Your task to perform on an android device: Clear the shopping cart on newegg.com. Add razer thresher to the cart on newegg.com Image 0: 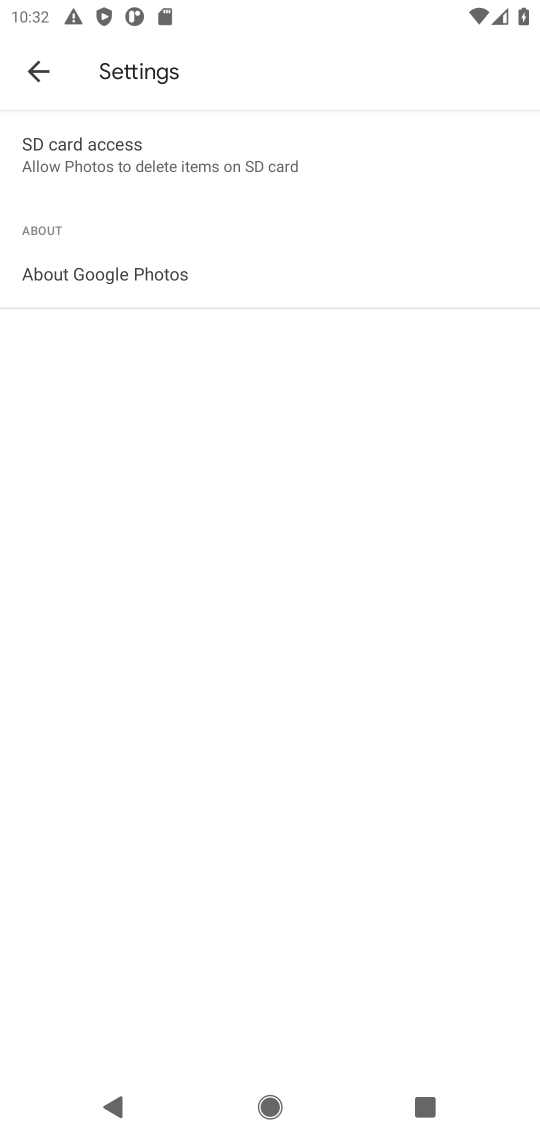
Step 0: press home button
Your task to perform on an android device: Clear the shopping cart on newegg.com. Add razer thresher to the cart on newegg.com Image 1: 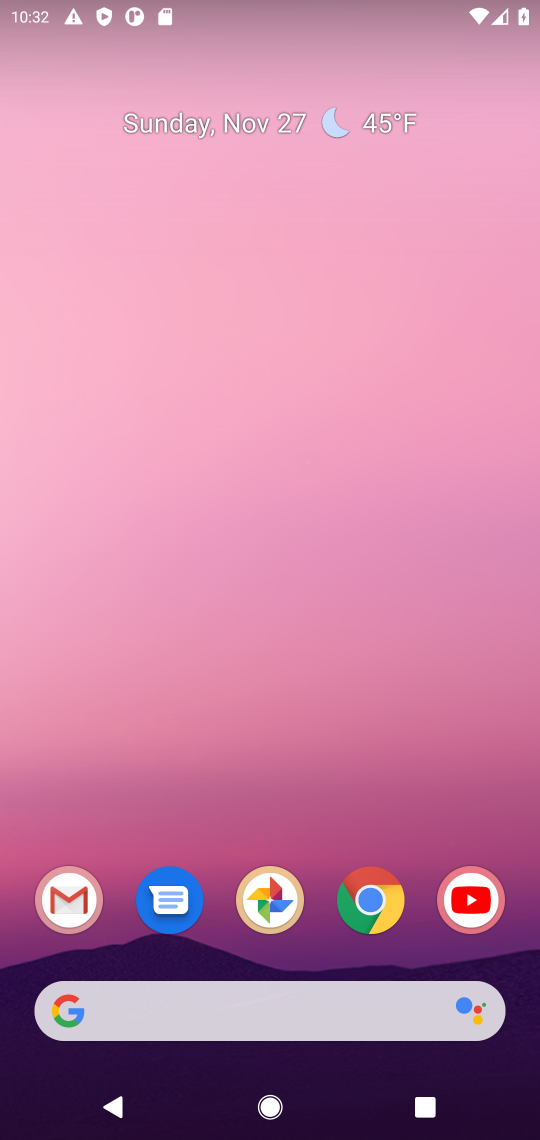
Step 1: click (379, 899)
Your task to perform on an android device: Clear the shopping cart on newegg.com. Add razer thresher to the cart on newegg.com Image 2: 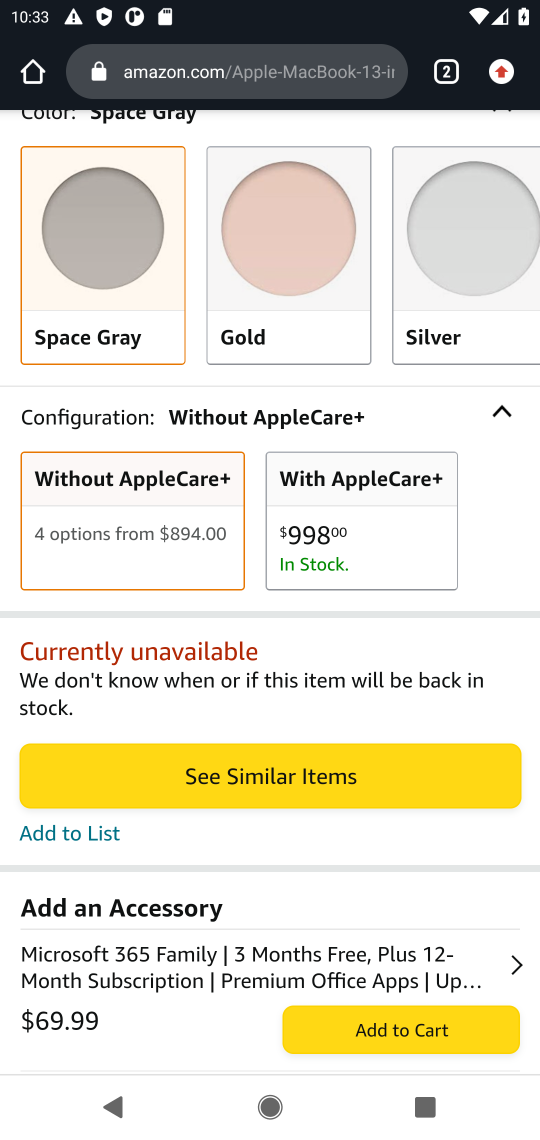
Step 2: click (228, 72)
Your task to perform on an android device: Clear the shopping cart on newegg.com. Add razer thresher to the cart on newegg.com Image 3: 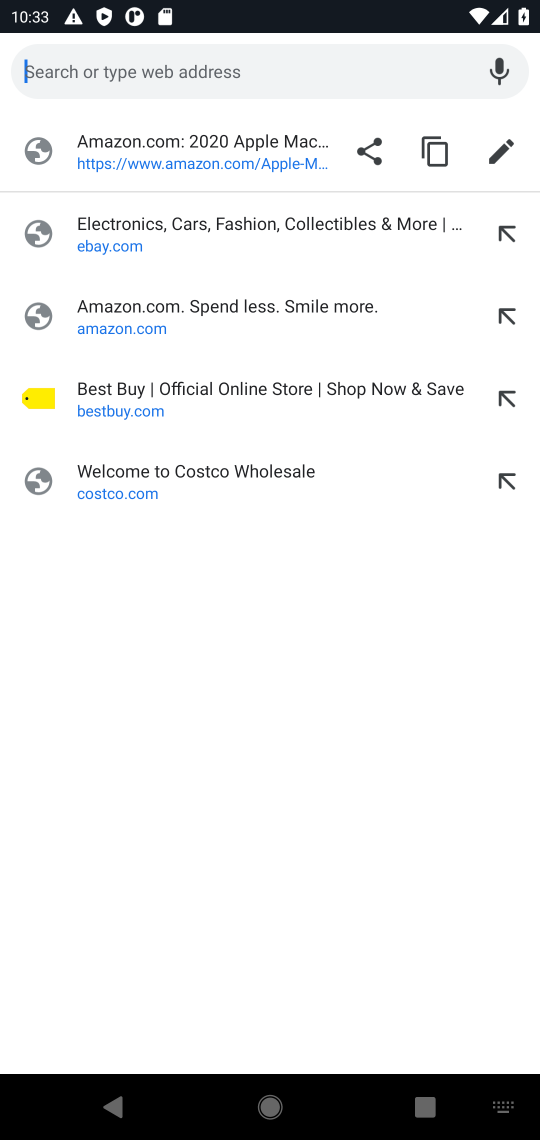
Step 3: type "newegg.com"
Your task to perform on an android device: Clear the shopping cart on newegg.com. Add razer thresher to the cart on newegg.com Image 4: 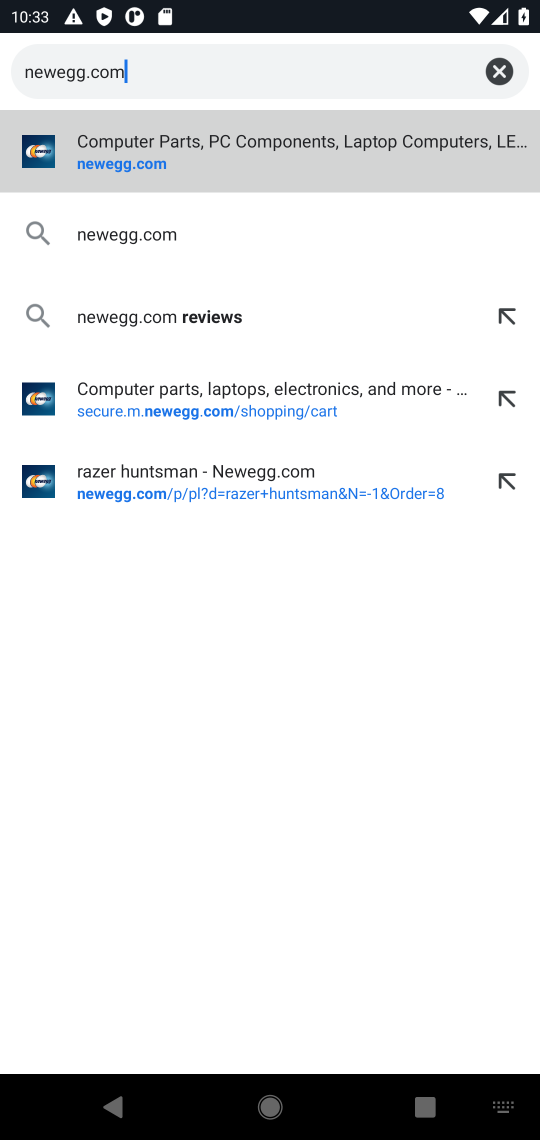
Step 4: click (115, 171)
Your task to perform on an android device: Clear the shopping cart on newegg.com. Add razer thresher to the cart on newegg.com Image 5: 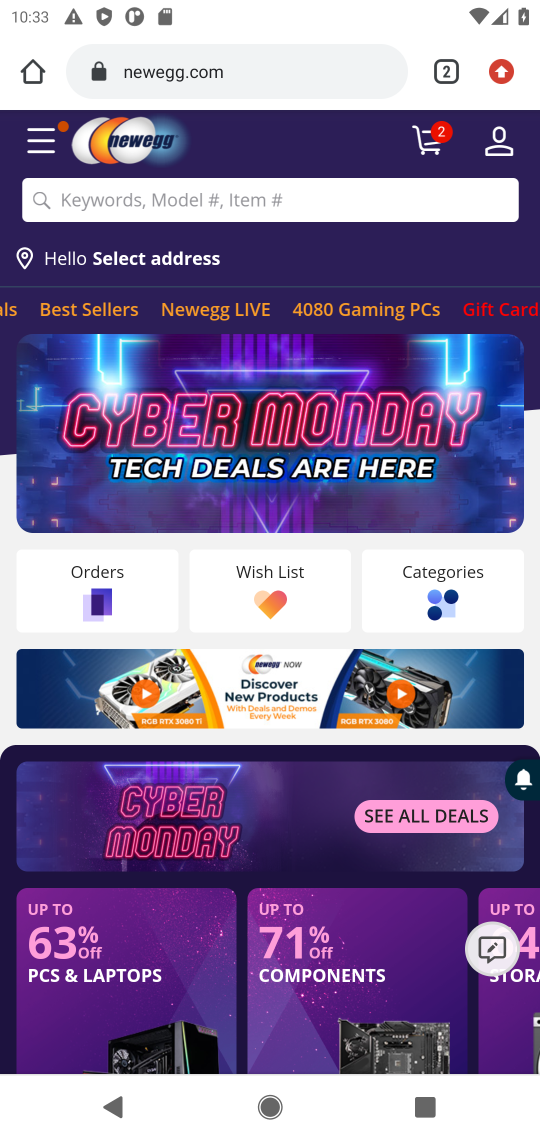
Step 5: click (436, 153)
Your task to perform on an android device: Clear the shopping cart on newegg.com. Add razer thresher to the cart on newegg.com Image 6: 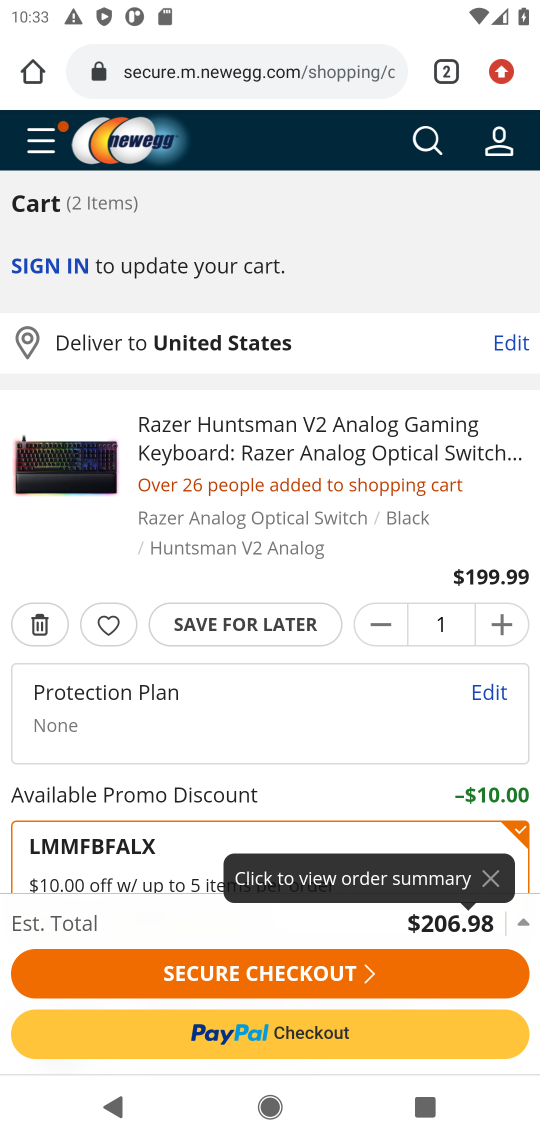
Step 6: click (42, 625)
Your task to perform on an android device: Clear the shopping cart on newegg.com. Add razer thresher to the cart on newegg.com Image 7: 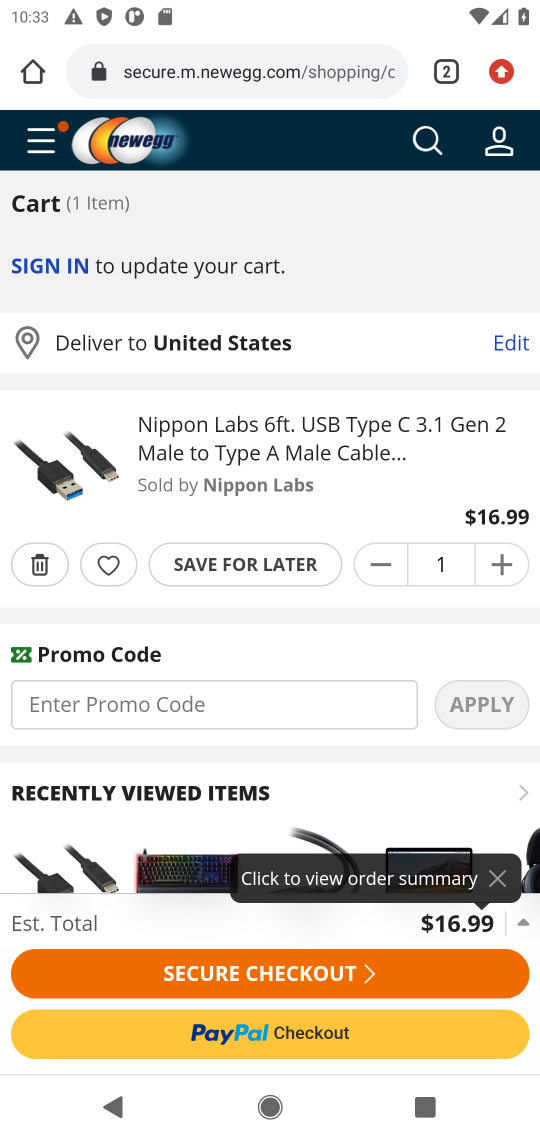
Step 7: click (37, 564)
Your task to perform on an android device: Clear the shopping cart on newegg.com. Add razer thresher to the cart on newegg.com Image 8: 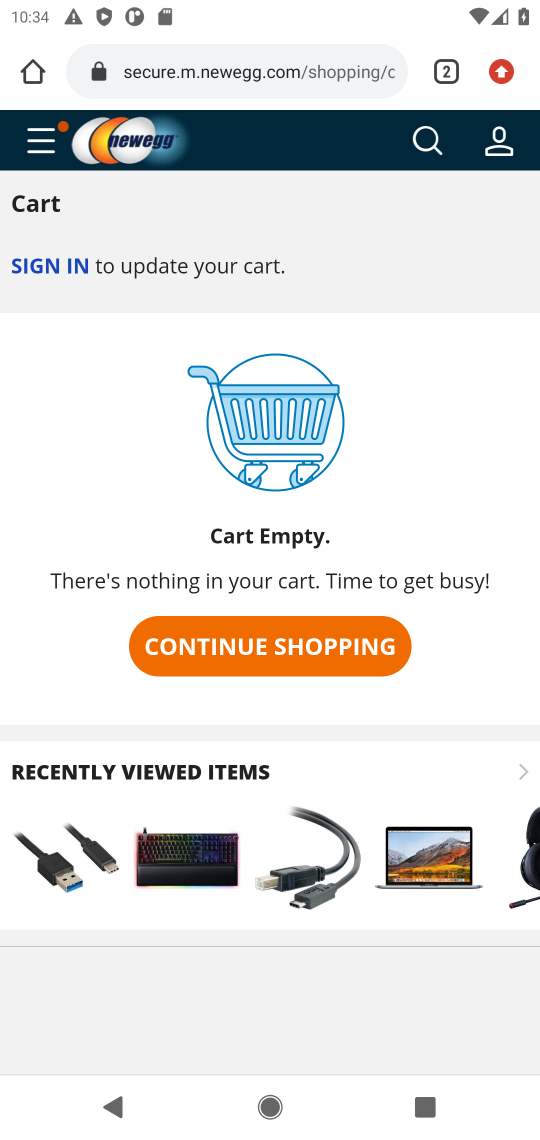
Step 8: click (37, 564)
Your task to perform on an android device: Clear the shopping cart on newegg.com. Add razer thresher to the cart on newegg.com Image 9: 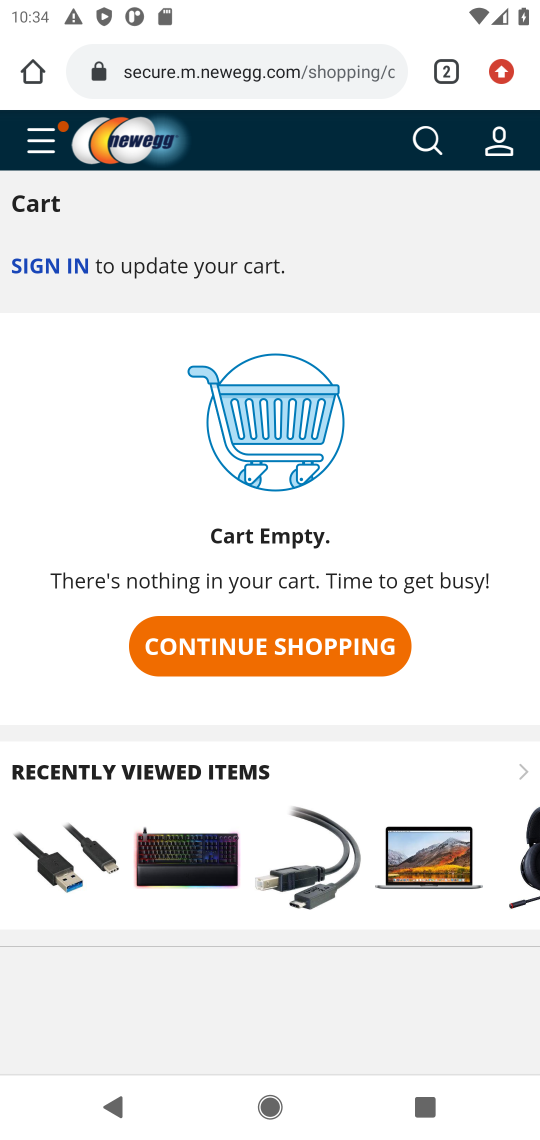
Step 9: click (236, 648)
Your task to perform on an android device: Clear the shopping cart on newegg.com. Add razer thresher to the cart on newegg.com Image 10: 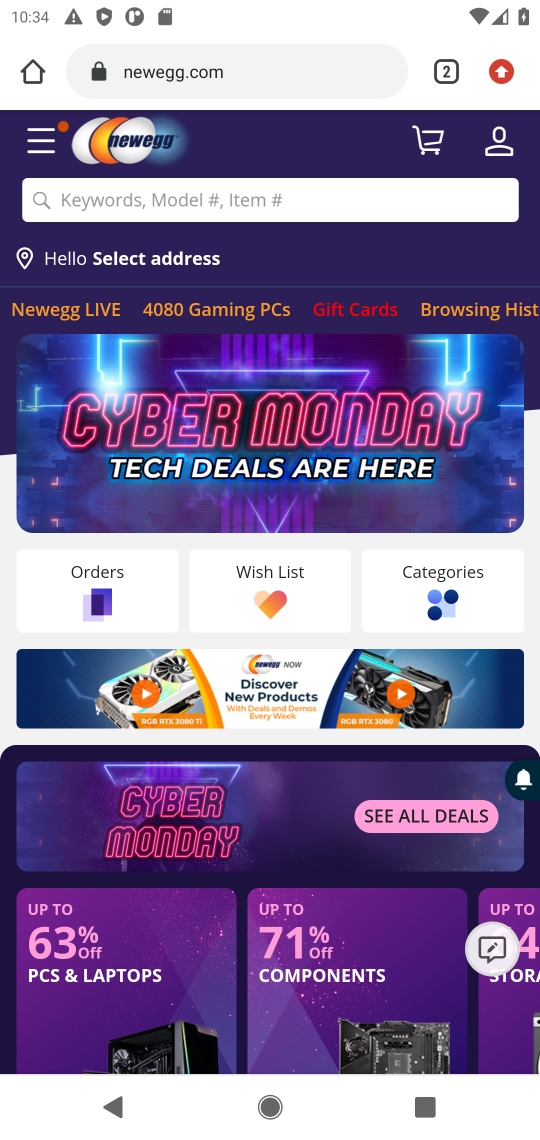
Step 10: click (176, 203)
Your task to perform on an android device: Clear the shopping cart on newegg.com. Add razer thresher to the cart on newegg.com Image 11: 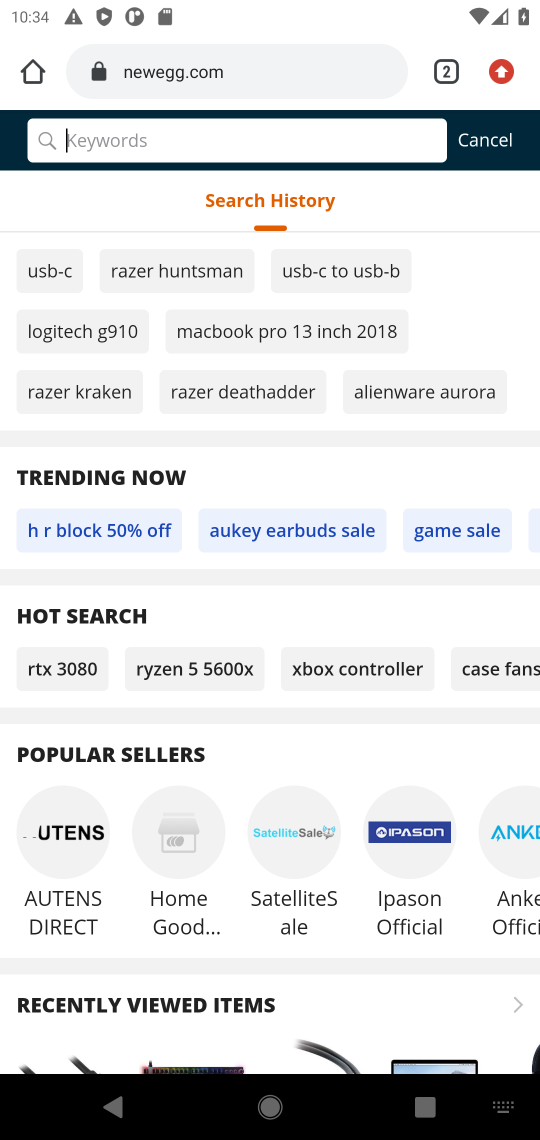
Step 11: type "razer thresher"
Your task to perform on an android device: Clear the shopping cart on newegg.com. Add razer thresher to the cart on newegg.com Image 12: 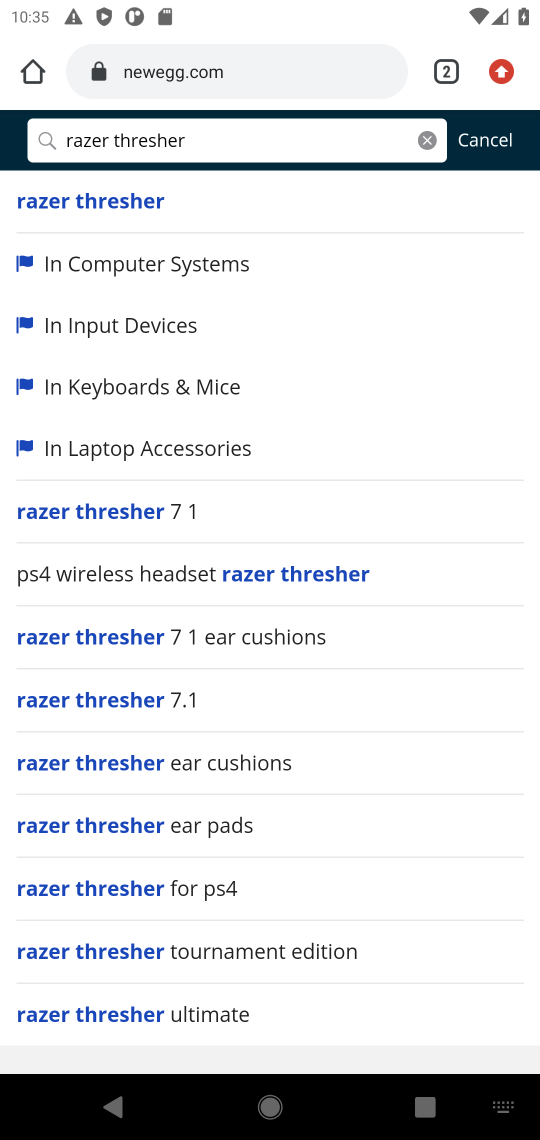
Step 12: click (97, 198)
Your task to perform on an android device: Clear the shopping cart on newegg.com. Add razer thresher to the cart on newegg.com Image 13: 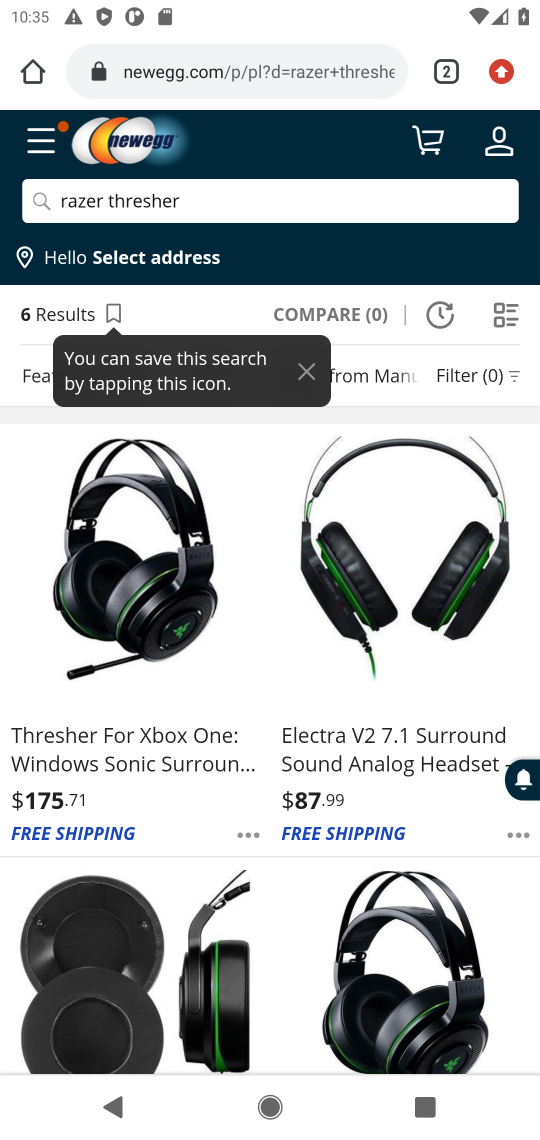
Step 13: drag from (236, 837) to (239, 457)
Your task to perform on an android device: Clear the shopping cart on newegg.com. Add razer thresher to the cart on newegg.com Image 14: 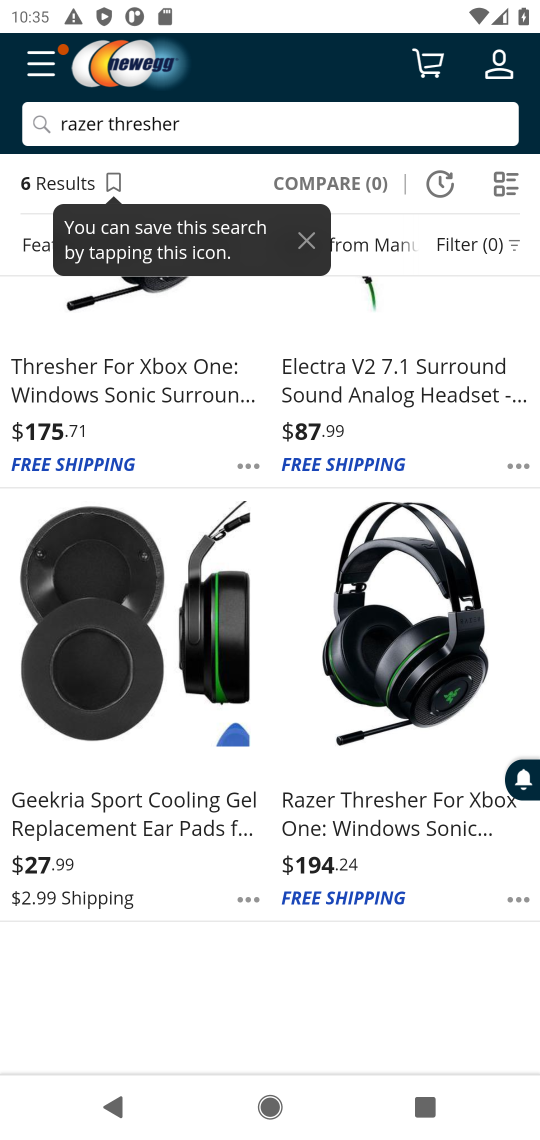
Step 14: click (420, 661)
Your task to perform on an android device: Clear the shopping cart on newegg.com. Add razer thresher to the cart on newegg.com Image 15: 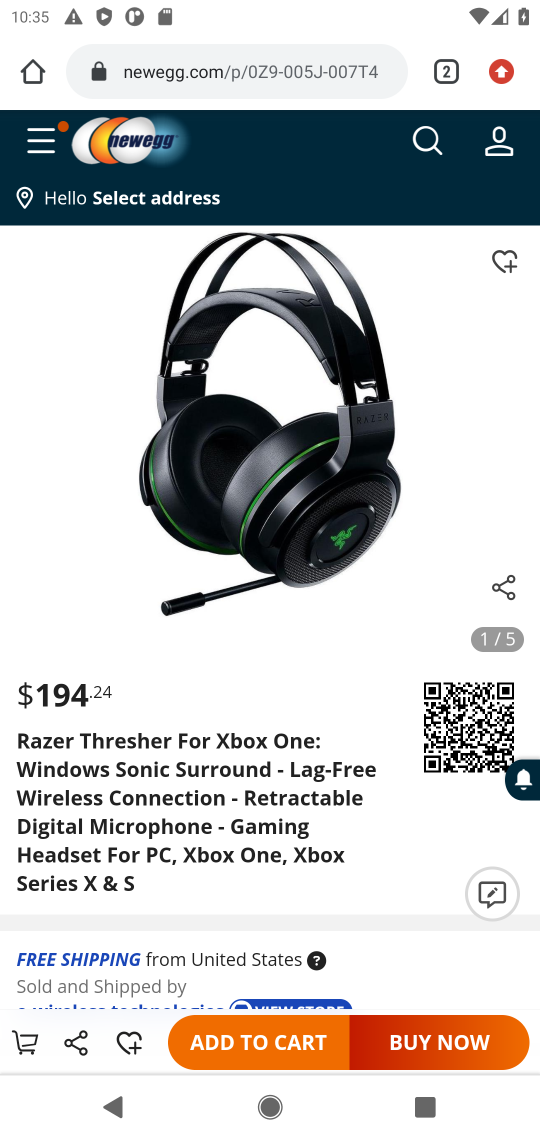
Step 15: click (251, 1045)
Your task to perform on an android device: Clear the shopping cart on newegg.com. Add razer thresher to the cart on newegg.com Image 16: 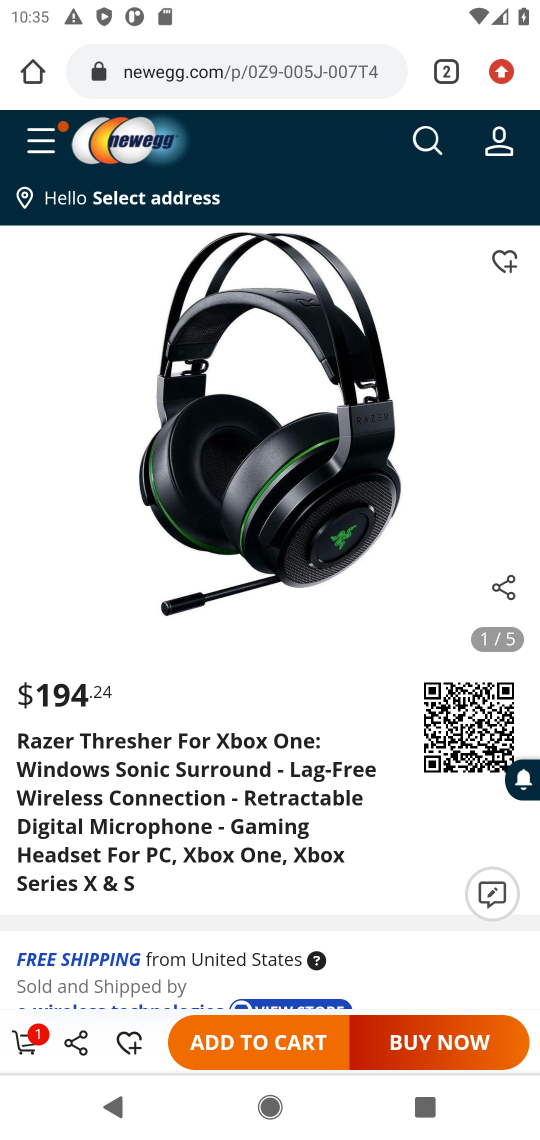
Step 16: task complete